Your task to perform on an android device: Show me recent news Image 0: 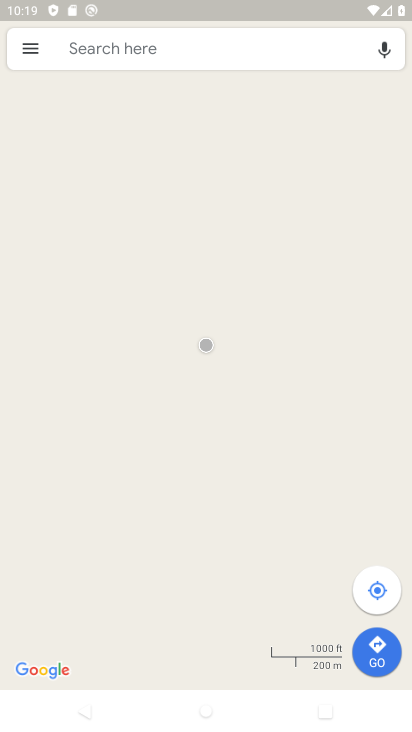
Step 0: press home button
Your task to perform on an android device: Show me recent news Image 1: 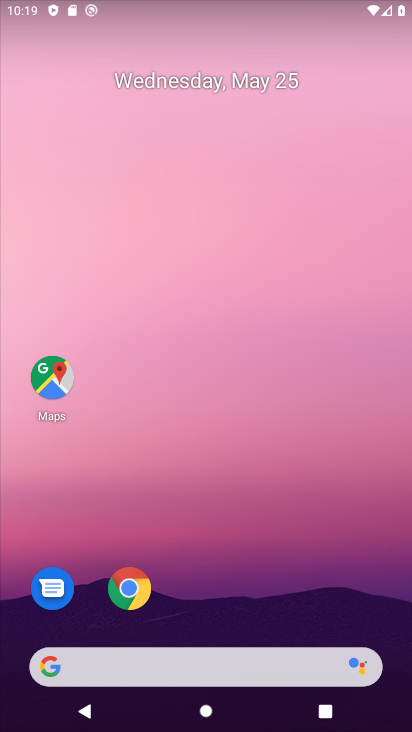
Step 1: drag from (245, 571) to (238, 173)
Your task to perform on an android device: Show me recent news Image 2: 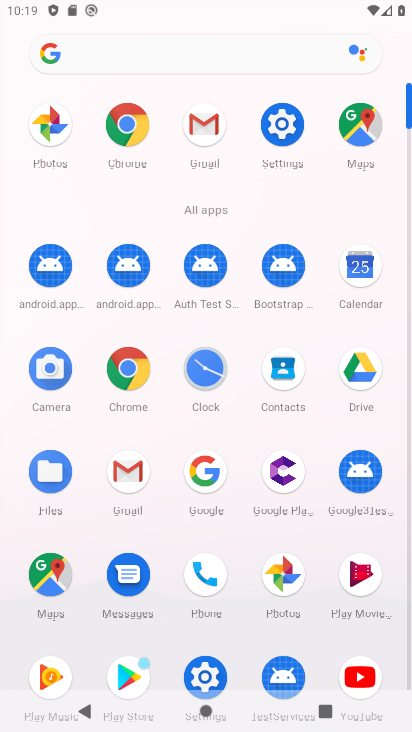
Step 2: click (136, 370)
Your task to perform on an android device: Show me recent news Image 3: 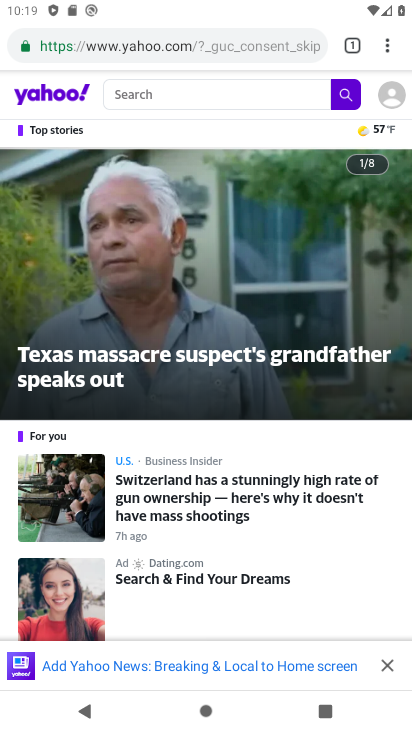
Step 3: click (233, 49)
Your task to perform on an android device: Show me recent news Image 4: 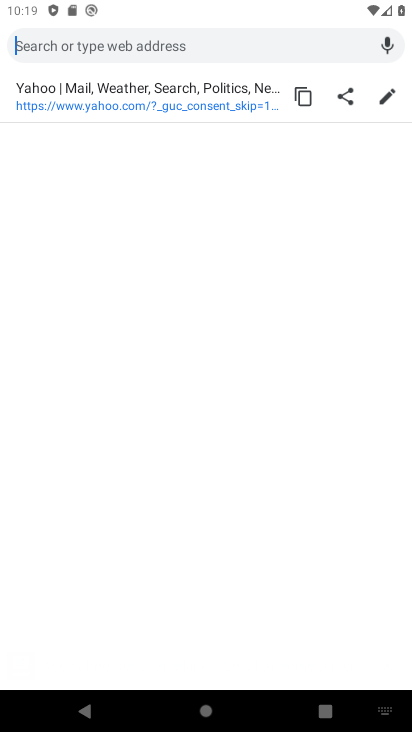
Step 4: type "news"
Your task to perform on an android device: Show me recent news Image 5: 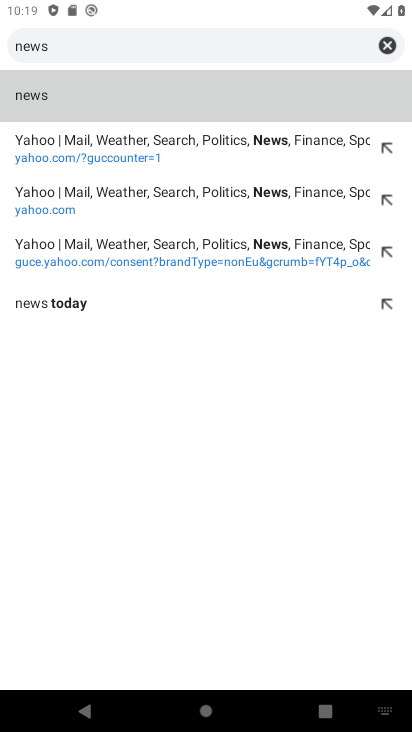
Step 5: click (45, 95)
Your task to perform on an android device: Show me recent news Image 6: 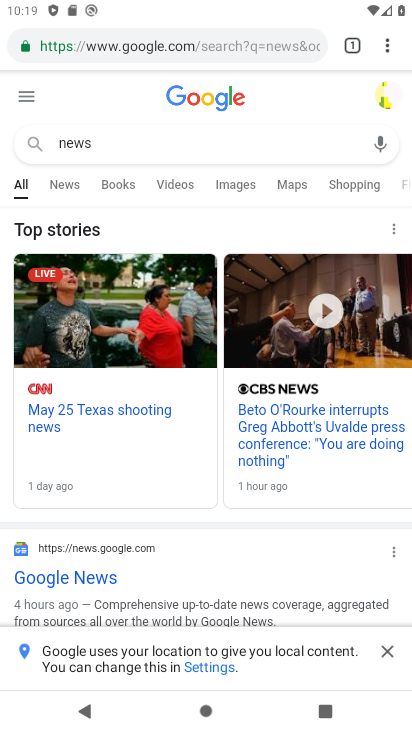
Step 6: click (76, 189)
Your task to perform on an android device: Show me recent news Image 7: 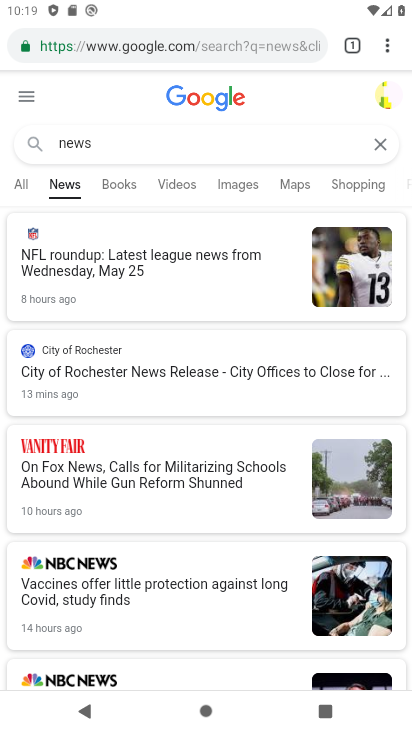
Step 7: task complete